Your task to perform on an android device: Play the last video I watched on Youtube Image 0: 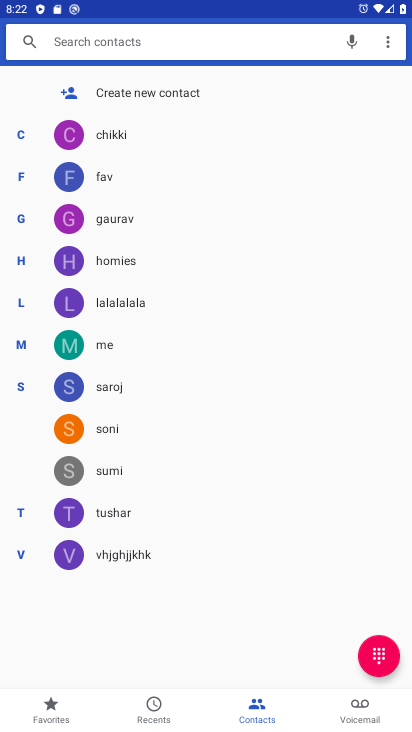
Step 0: press home button
Your task to perform on an android device: Play the last video I watched on Youtube Image 1: 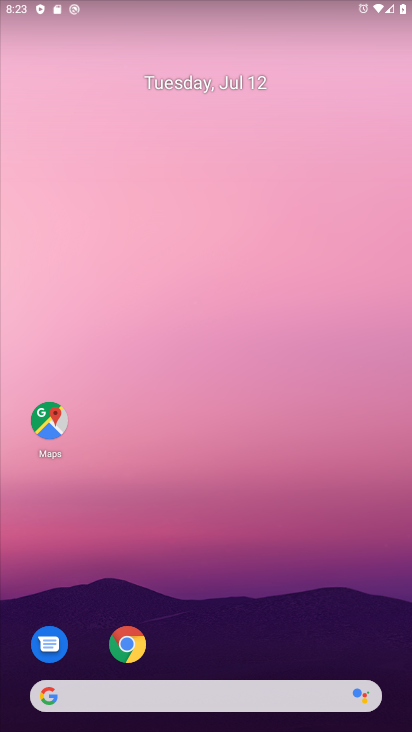
Step 1: drag from (26, 683) to (357, 10)
Your task to perform on an android device: Play the last video I watched on Youtube Image 2: 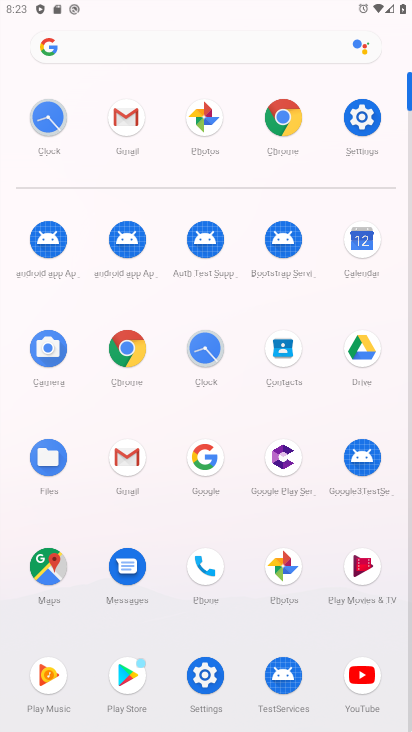
Step 2: click (373, 678)
Your task to perform on an android device: Play the last video I watched on Youtube Image 3: 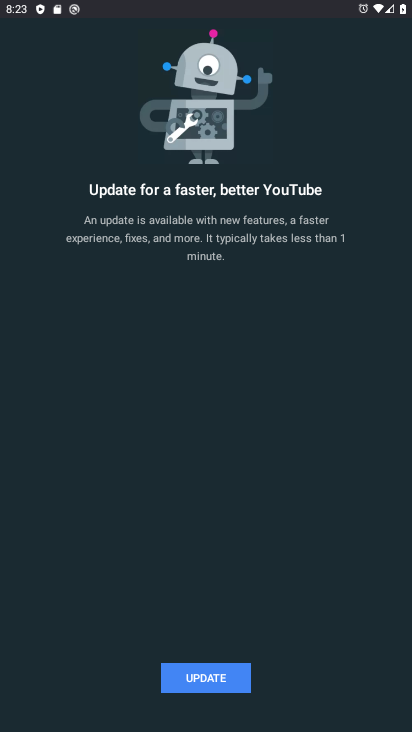
Step 3: click (195, 716)
Your task to perform on an android device: Play the last video I watched on Youtube Image 4: 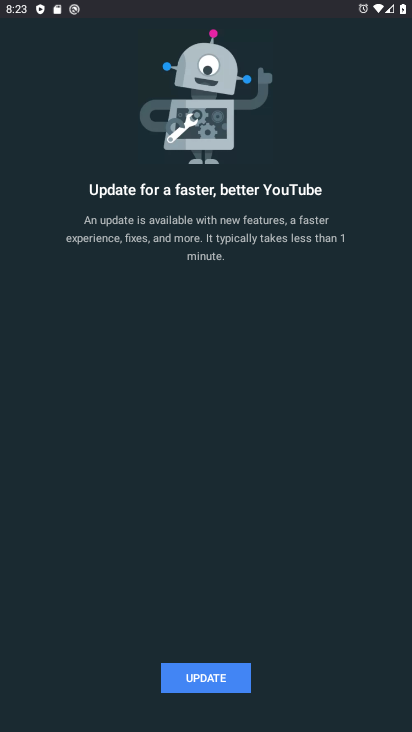
Step 4: click (184, 679)
Your task to perform on an android device: Play the last video I watched on Youtube Image 5: 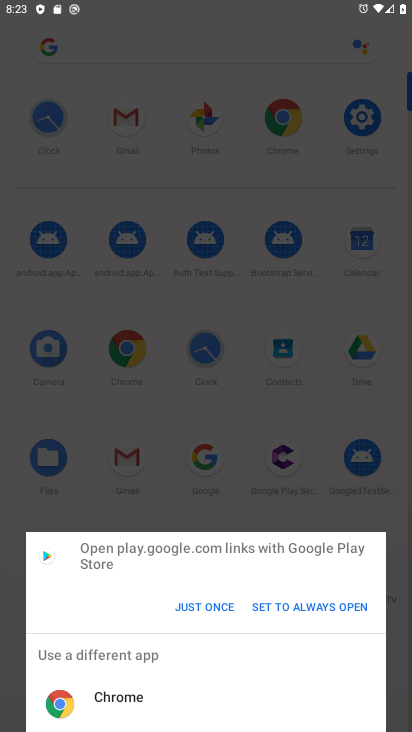
Step 5: click (198, 610)
Your task to perform on an android device: Play the last video I watched on Youtube Image 6: 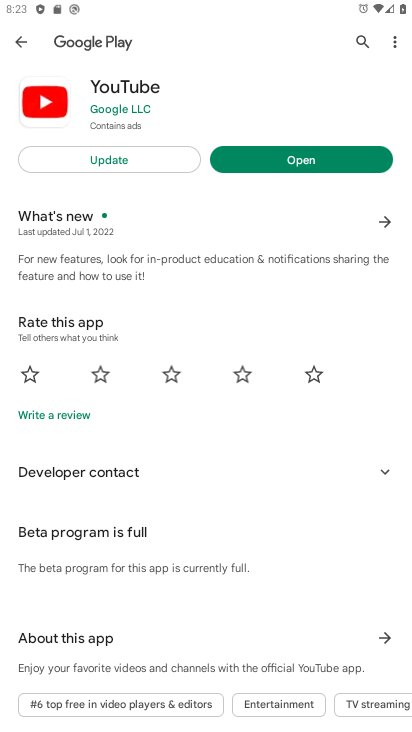
Step 6: click (299, 161)
Your task to perform on an android device: Play the last video I watched on Youtube Image 7: 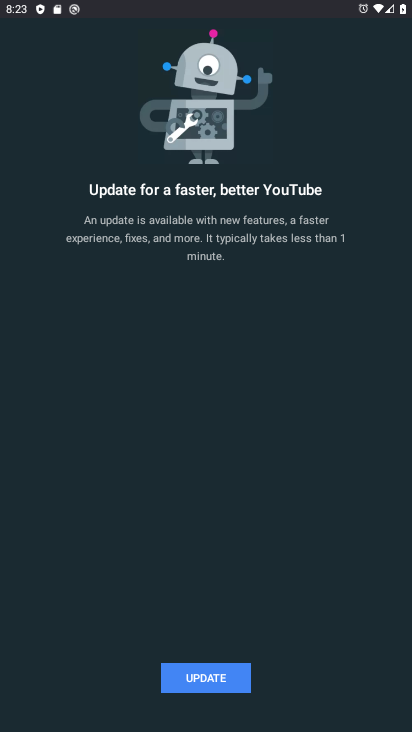
Step 7: task complete